Your task to perform on an android device: turn on translation in the chrome app Image 0: 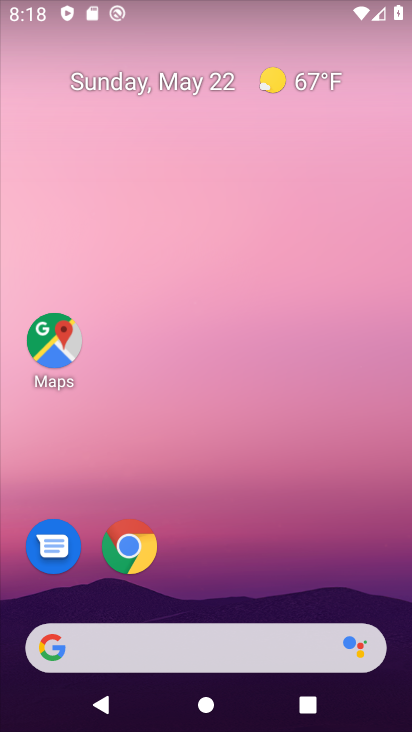
Step 0: drag from (206, 600) to (226, 69)
Your task to perform on an android device: turn on translation in the chrome app Image 1: 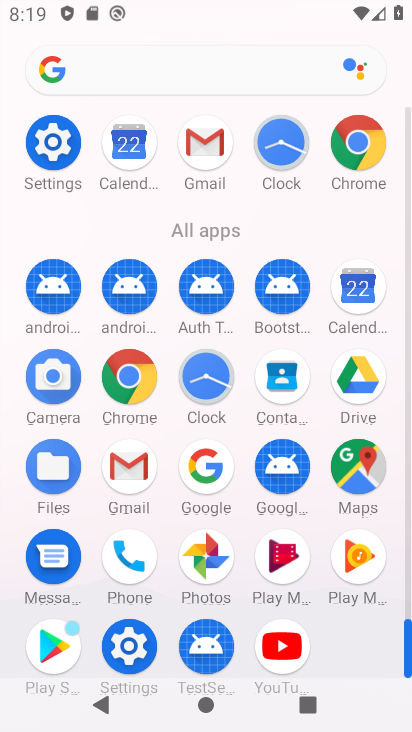
Step 1: click (129, 385)
Your task to perform on an android device: turn on translation in the chrome app Image 2: 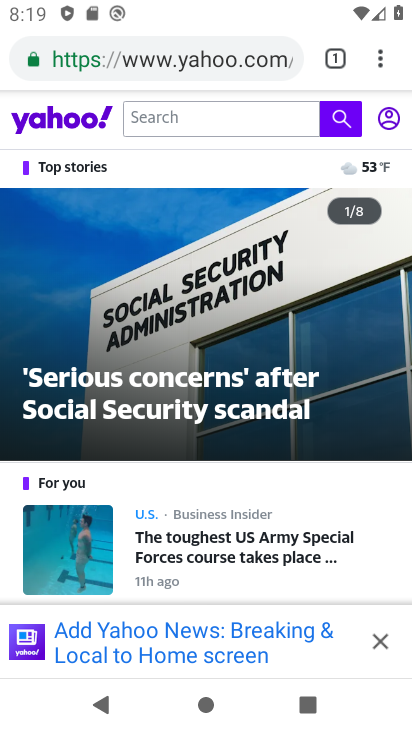
Step 2: click (384, 60)
Your task to perform on an android device: turn on translation in the chrome app Image 3: 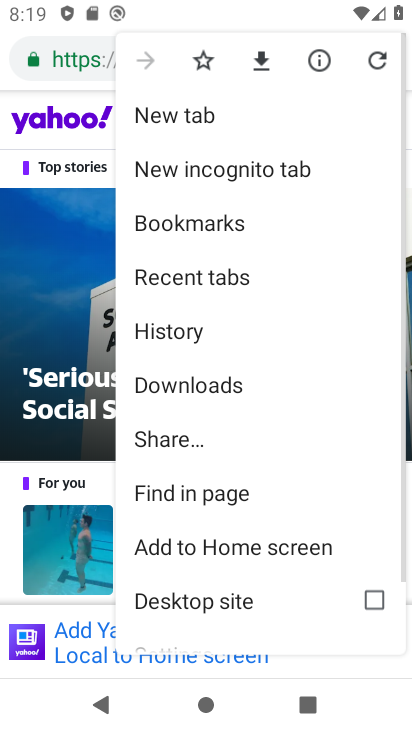
Step 3: drag from (193, 578) to (236, 217)
Your task to perform on an android device: turn on translation in the chrome app Image 4: 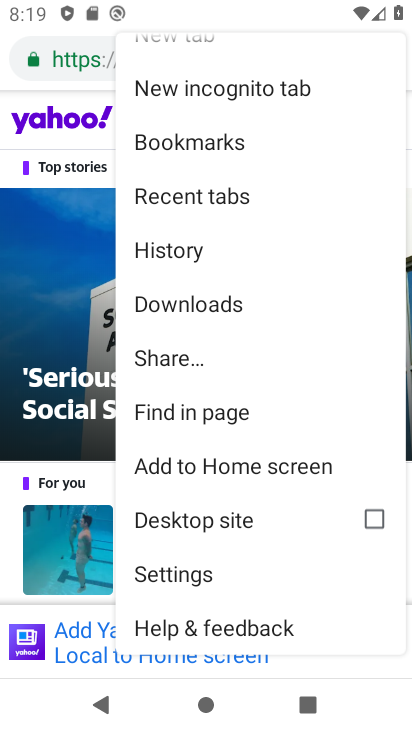
Step 4: click (214, 580)
Your task to perform on an android device: turn on translation in the chrome app Image 5: 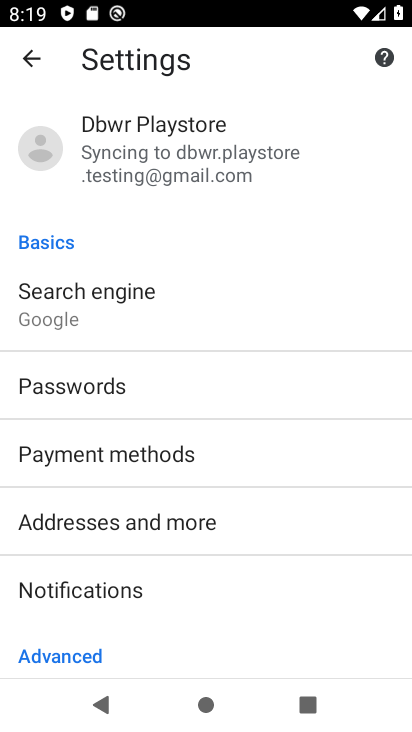
Step 5: drag from (184, 501) to (204, 188)
Your task to perform on an android device: turn on translation in the chrome app Image 6: 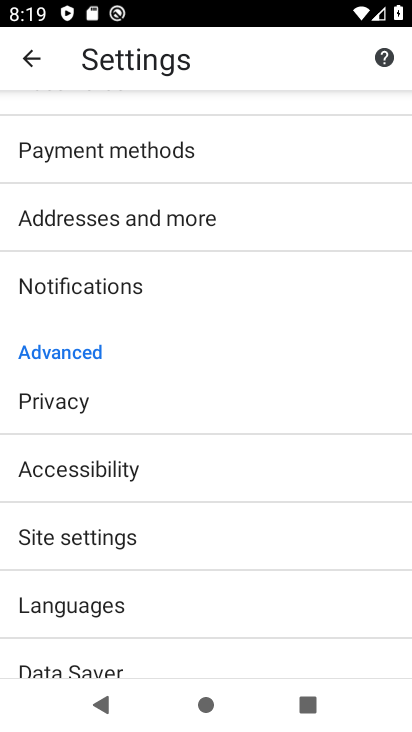
Step 6: click (120, 599)
Your task to perform on an android device: turn on translation in the chrome app Image 7: 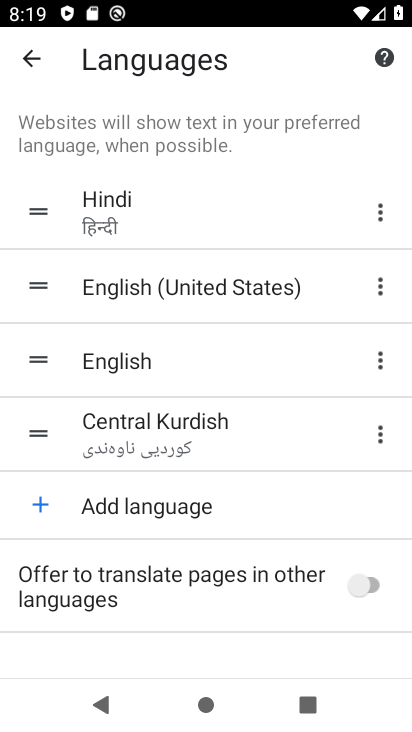
Step 7: click (375, 597)
Your task to perform on an android device: turn on translation in the chrome app Image 8: 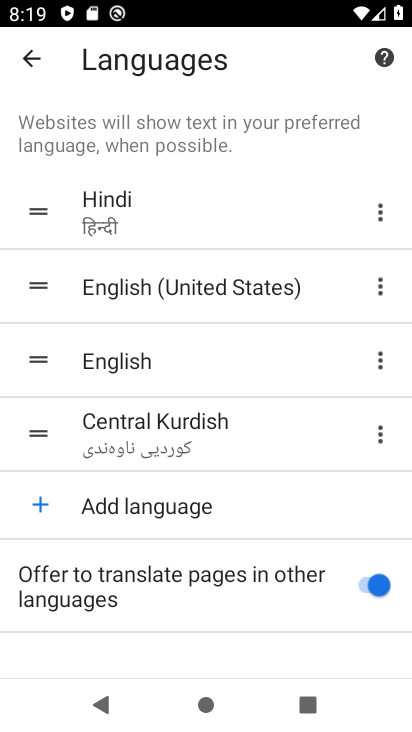
Step 8: task complete